Your task to perform on an android device: Find coffee shops on Maps Image 0: 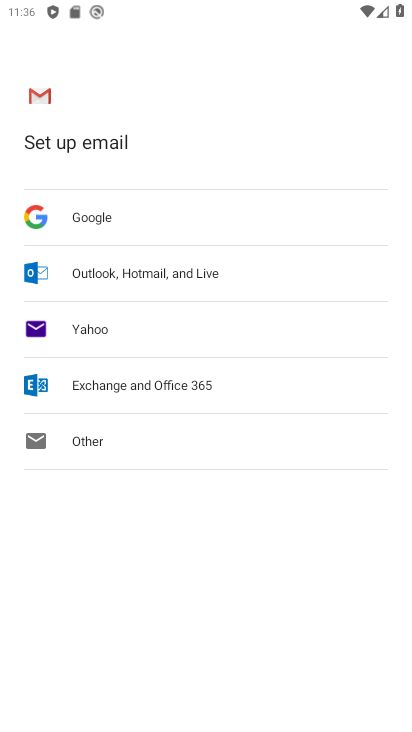
Step 0: press home button
Your task to perform on an android device: Find coffee shops on Maps Image 1: 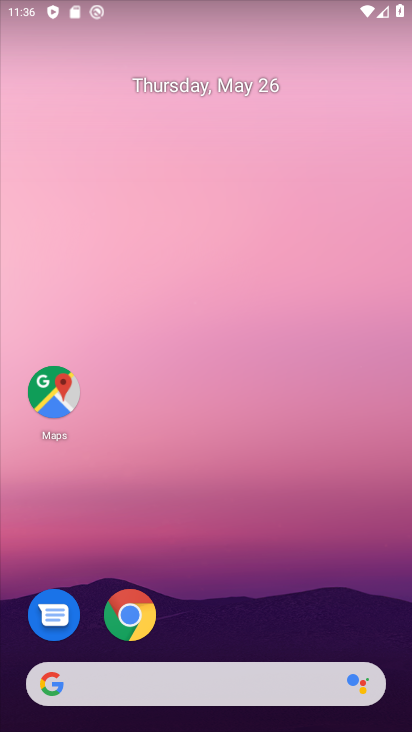
Step 1: drag from (227, 646) to (138, 220)
Your task to perform on an android device: Find coffee shops on Maps Image 2: 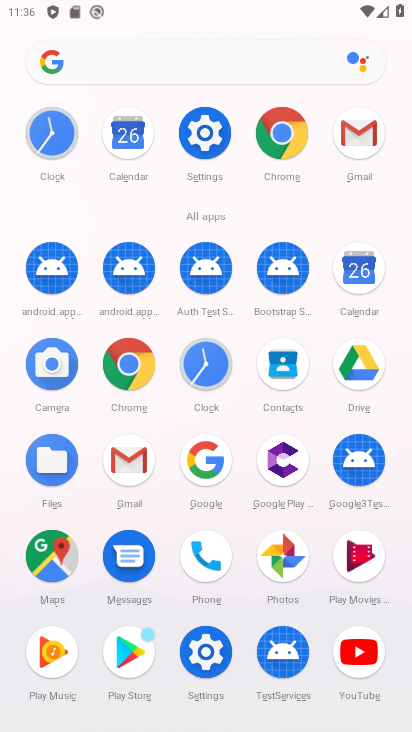
Step 2: click (52, 572)
Your task to perform on an android device: Find coffee shops on Maps Image 3: 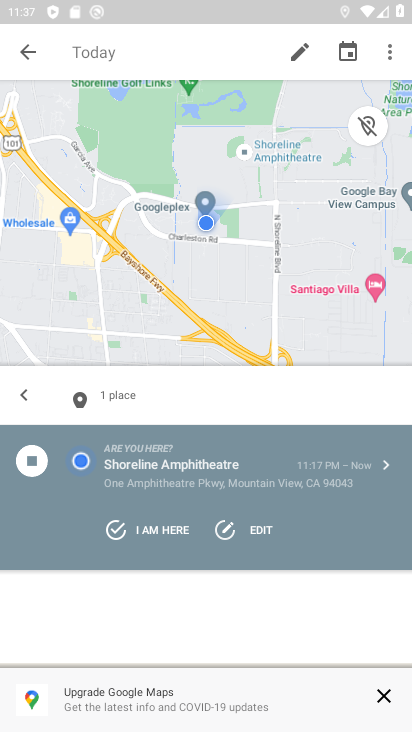
Step 3: click (30, 49)
Your task to perform on an android device: Find coffee shops on Maps Image 4: 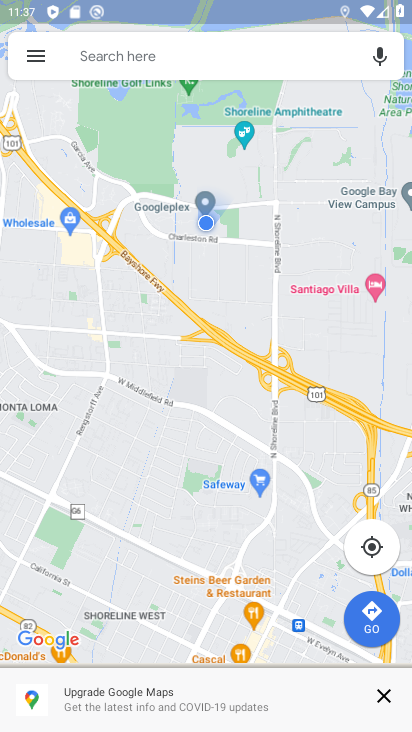
Step 4: click (140, 63)
Your task to perform on an android device: Find coffee shops on Maps Image 5: 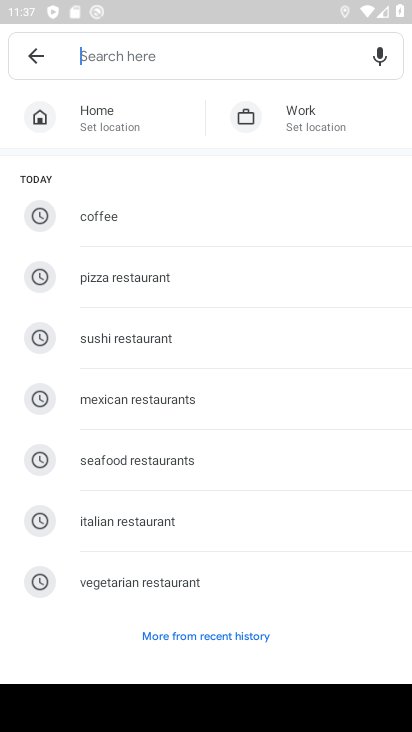
Step 5: click (126, 211)
Your task to perform on an android device: Find coffee shops on Maps Image 6: 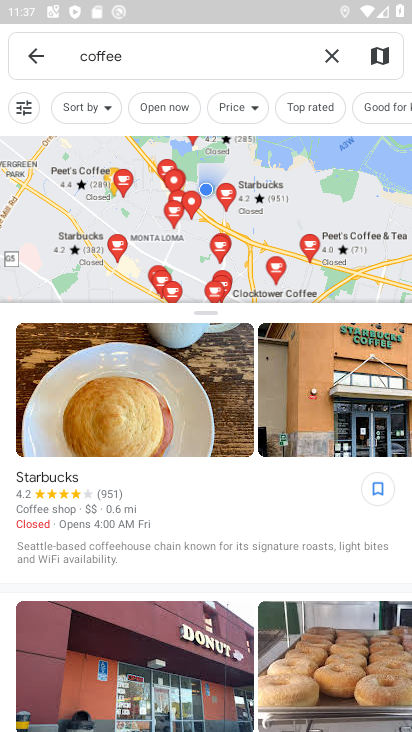
Step 6: task complete